Your task to perform on an android device: change alarm snooze length Image 0: 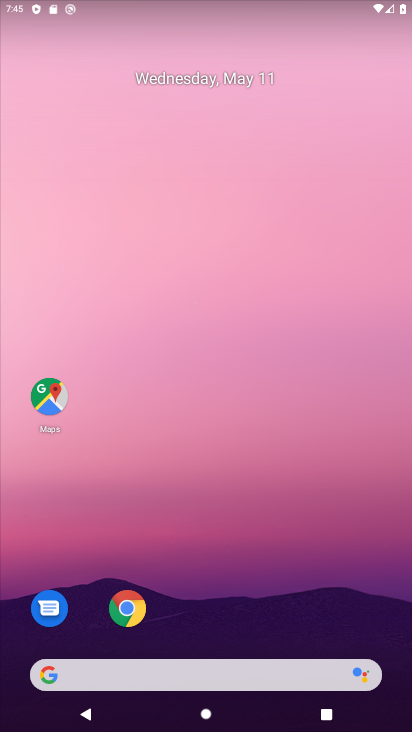
Step 0: drag from (234, 612) to (212, 121)
Your task to perform on an android device: change alarm snooze length Image 1: 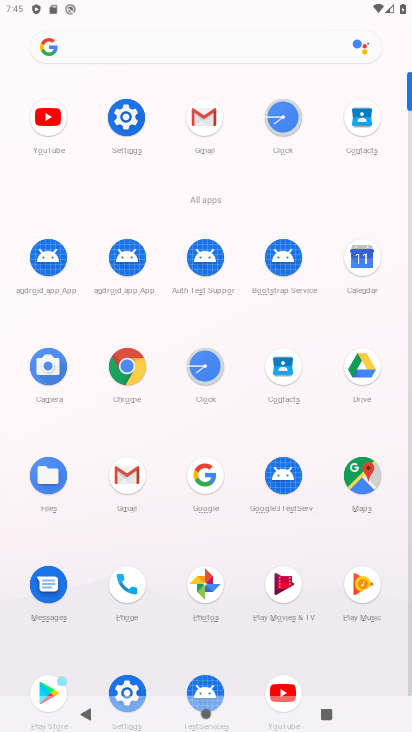
Step 1: click (282, 111)
Your task to perform on an android device: change alarm snooze length Image 2: 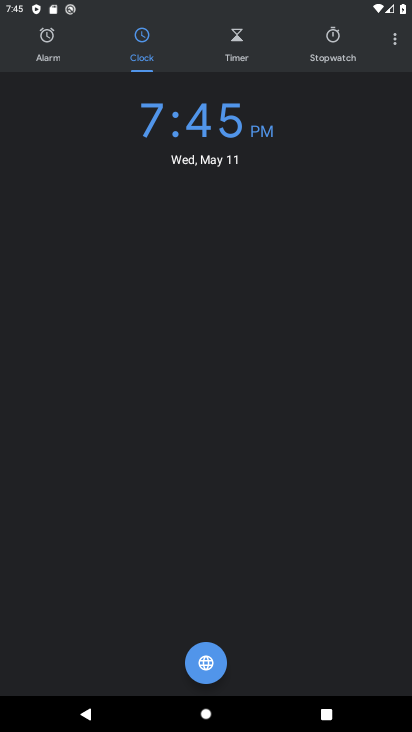
Step 2: click (390, 48)
Your task to perform on an android device: change alarm snooze length Image 3: 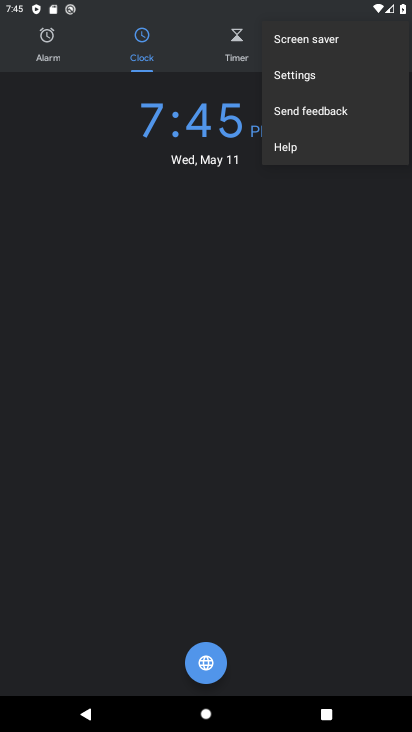
Step 3: click (312, 72)
Your task to perform on an android device: change alarm snooze length Image 4: 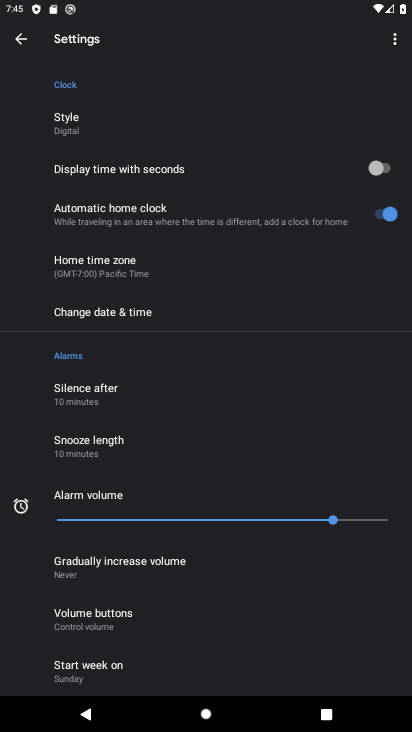
Step 4: click (121, 442)
Your task to perform on an android device: change alarm snooze length Image 5: 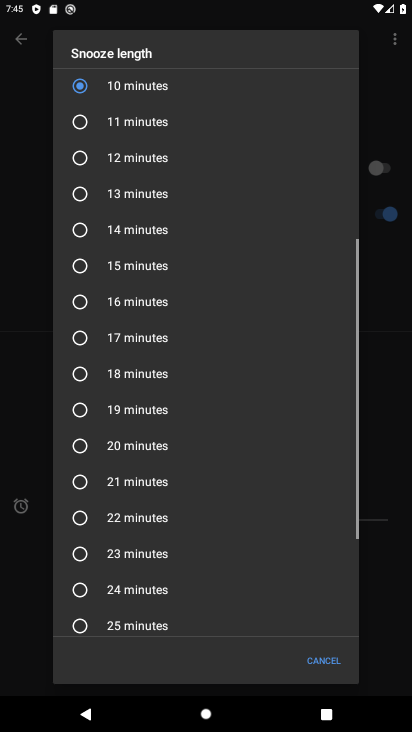
Step 5: click (115, 269)
Your task to perform on an android device: change alarm snooze length Image 6: 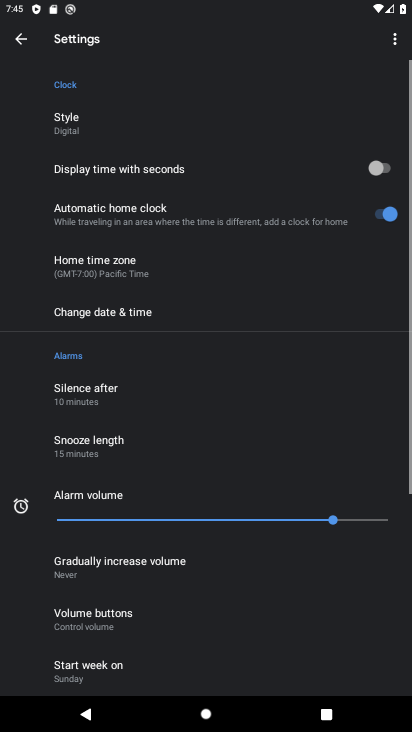
Step 6: task complete